Your task to perform on an android device: When is my next appointment? Image 0: 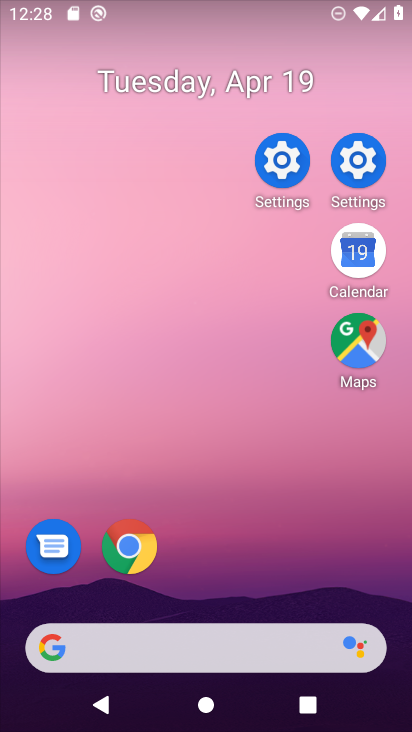
Step 0: drag from (275, 605) to (78, 151)
Your task to perform on an android device: When is my next appointment? Image 1: 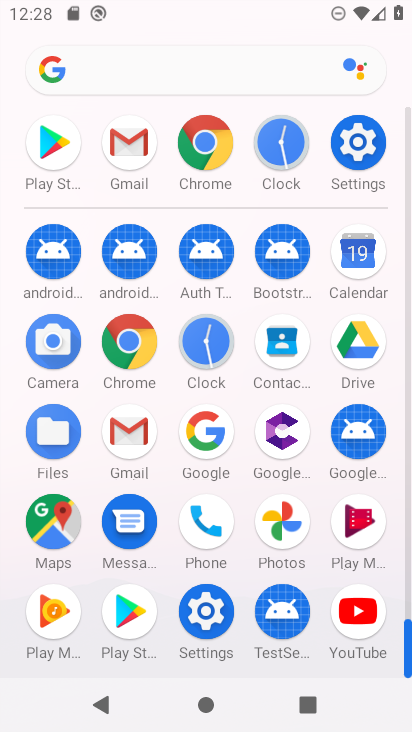
Step 1: click (119, 151)
Your task to perform on an android device: When is my next appointment? Image 2: 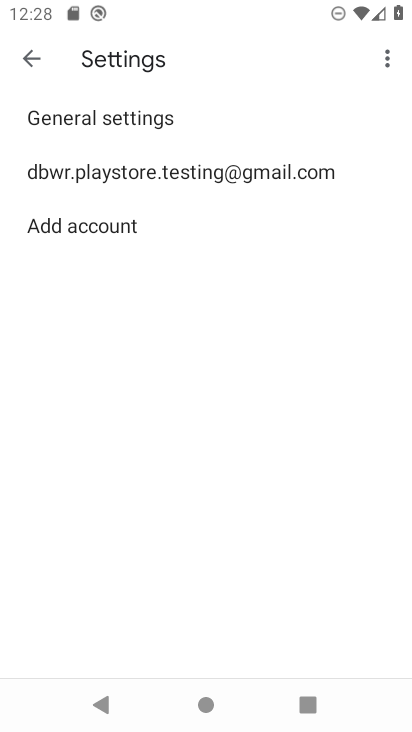
Step 2: click (25, 59)
Your task to perform on an android device: When is my next appointment? Image 3: 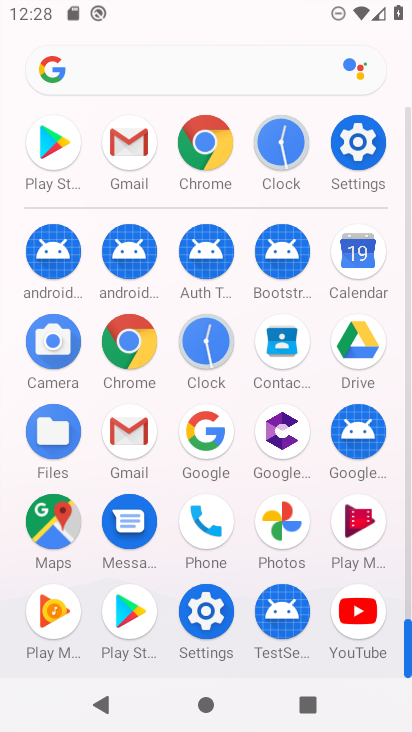
Step 3: click (372, 272)
Your task to perform on an android device: When is my next appointment? Image 4: 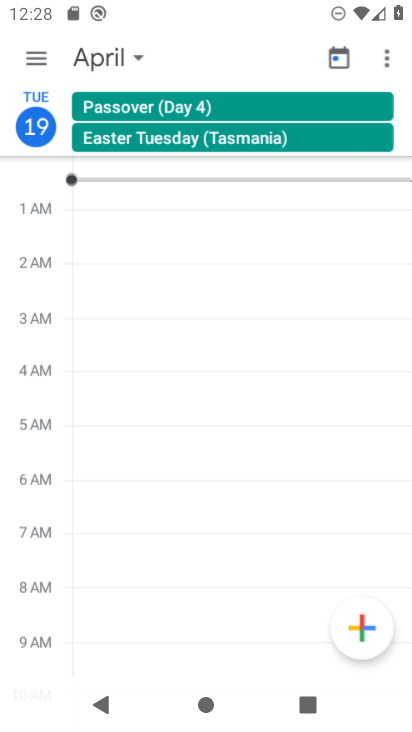
Step 4: click (367, 270)
Your task to perform on an android device: When is my next appointment? Image 5: 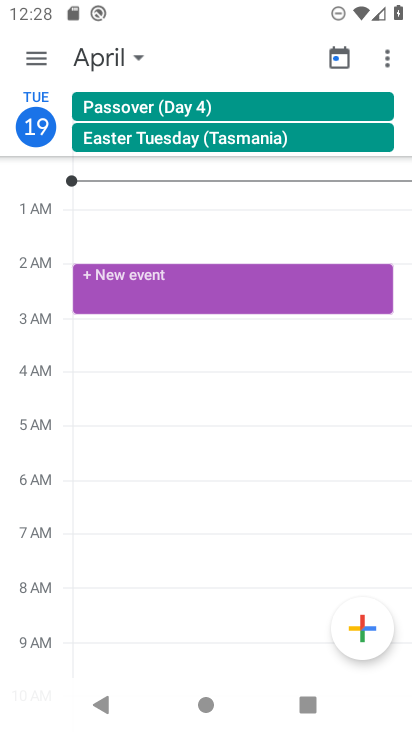
Step 5: click (35, 51)
Your task to perform on an android device: When is my next appointment? Image 6: 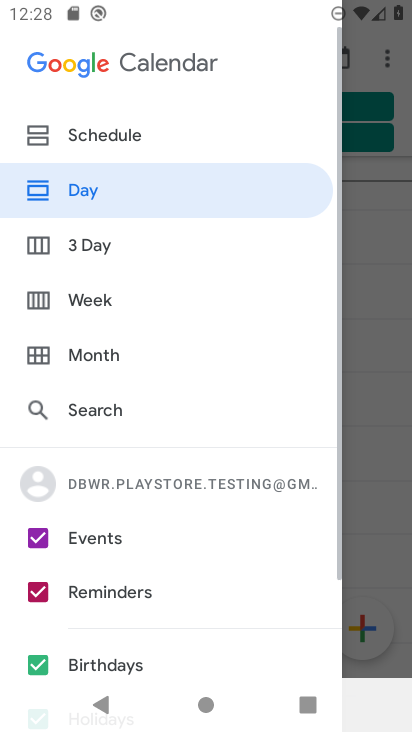
Step 6: click (82, 542)
Your task to perform on an android device: When is my next appointment? Image 7: 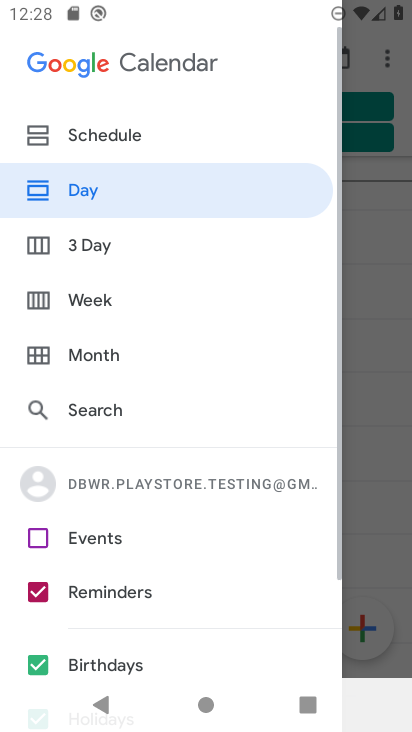
Step 7: click (82, 542)
Your task to perform on an android device: When is my next appointment? Image 8: 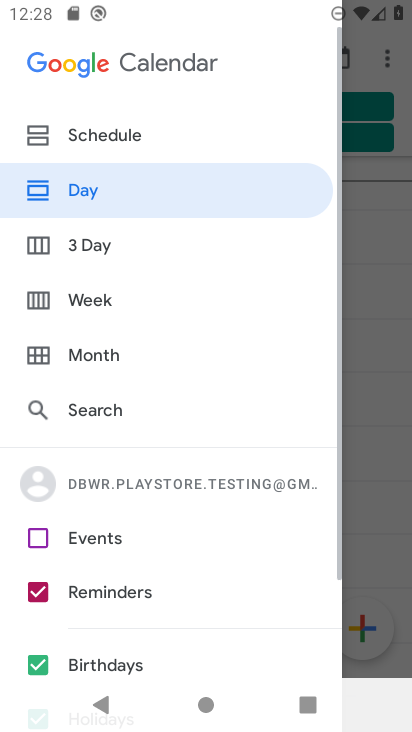
Step 8: click (82, 542)
Your task to perform on an android device: When is my next appointment? Image 9: 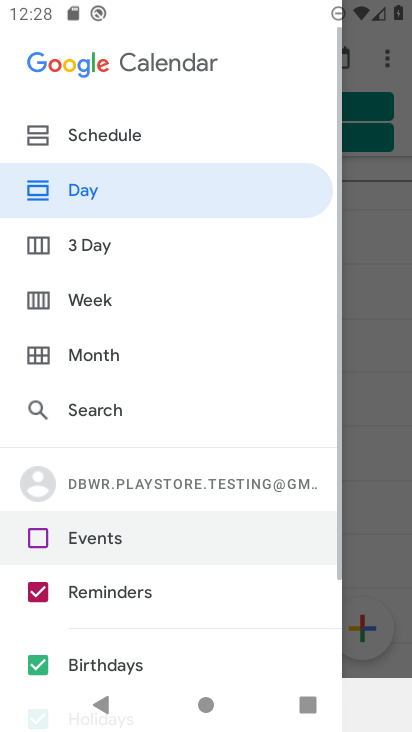
Step 9: click (82, 542)
Your task to perform on an android device: When is my next appointment? Image 10: 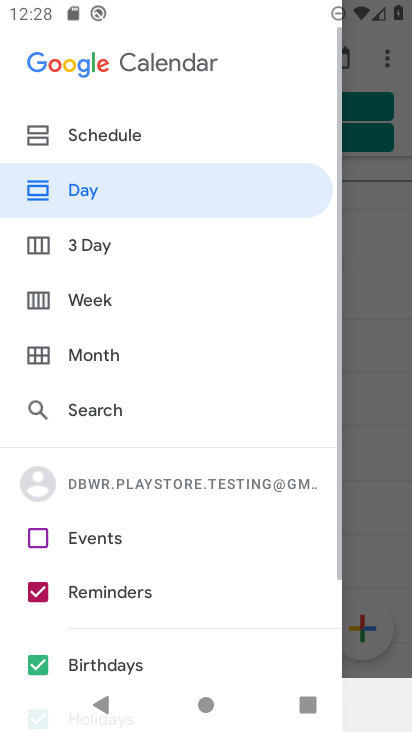
Step 10: click (82, 542)
Your task to perform on an android device: When is my next appointment? Image 11: 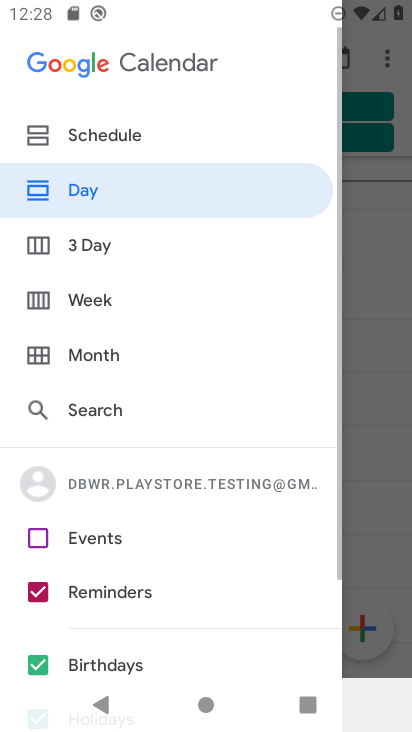
Step 11: click (39, 535)
Your task to perform on an android device: When is my next appointment? Image 12: 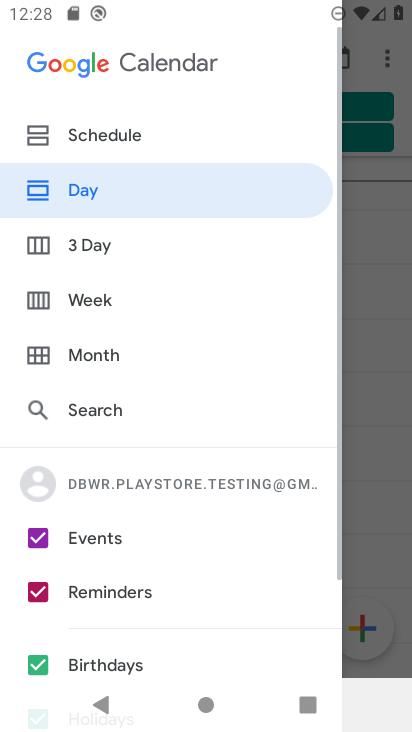
Step 12: click (39, 535)
Your task to perform on an android device: When is my next appointment? Image 13: 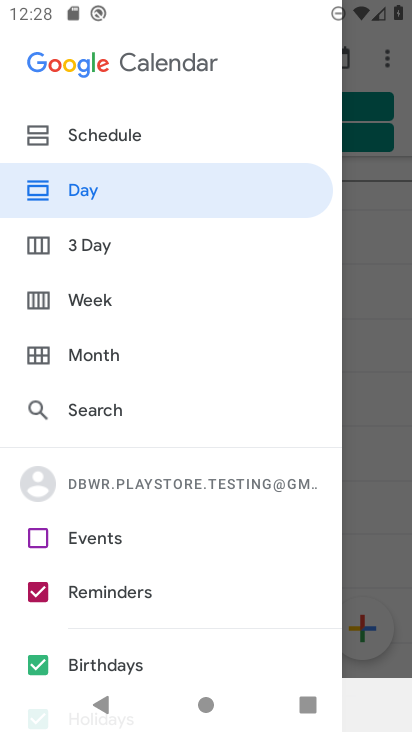
Step 13: click (34, 537)
Your task to perform on an android device: When is my next appointment? Image 14: 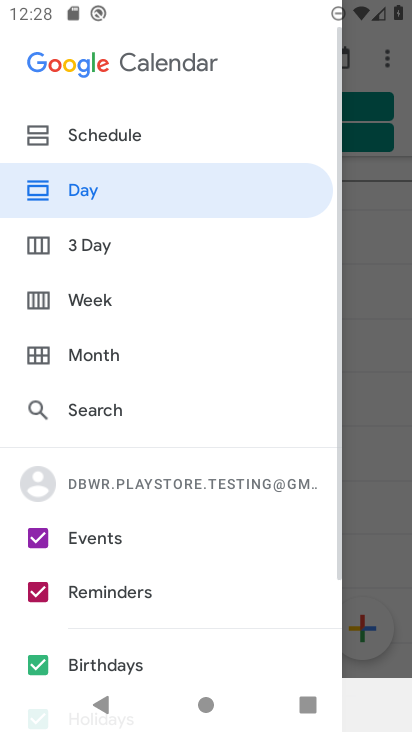
Step 14: drag from (228, 492) to (138, 189)
Your task to perform on an android device: When is my next appointment? Image 15: 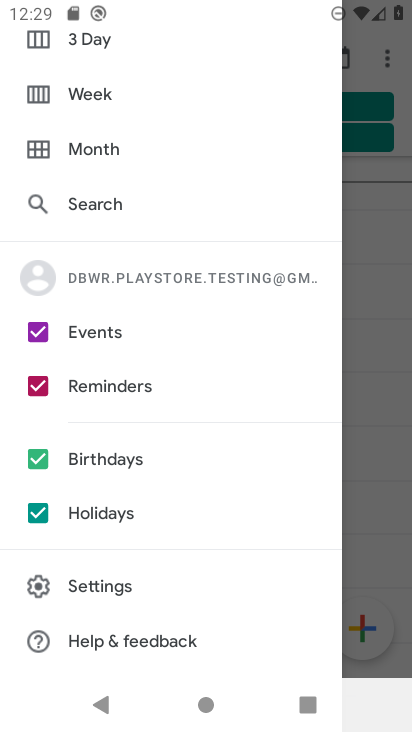
Step 15: click (85, 578)
Your task to perform on an android device: When is my next appointment? Image 16: 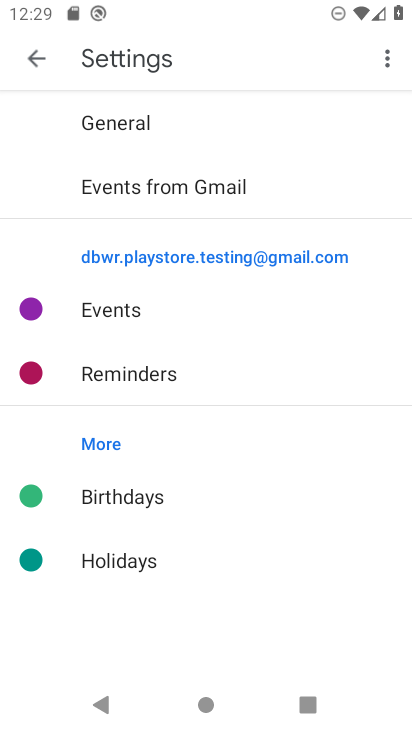
Step 16: click (93, 583)
Your task to perform on an android device: When is my next appointment? Image 17: 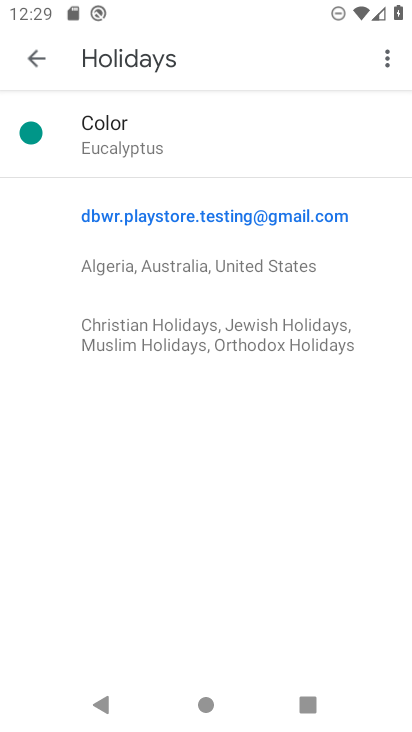
Step 17: click (37, 53)
Your task to perform on an android device: When is my next appointment? Image 18: 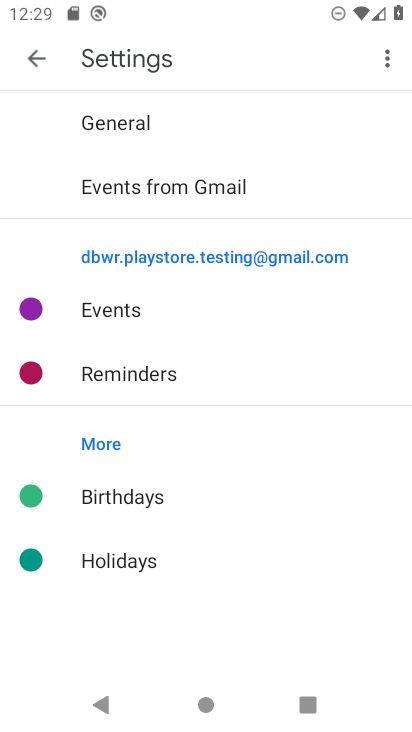
Step 18: click (24, 56)
Your task to perform on an android device: When is my next appointment? Image 19: 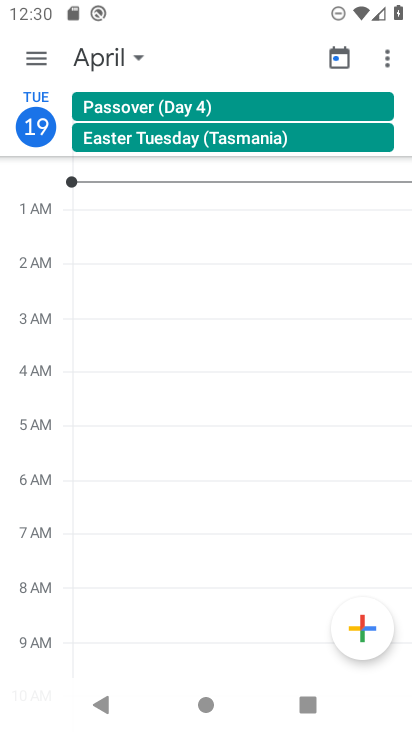
Step 19: click (125, 126)
Your task to perform on an android device: When is my next appointment? Image 20: 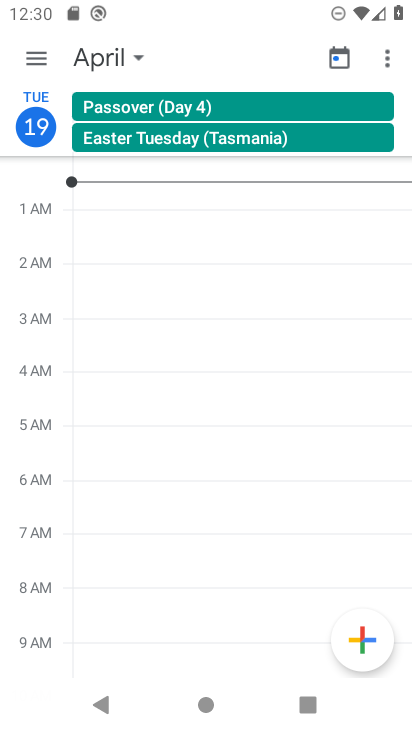
Step 20: drag from (209, 555) to (89, 158)
Your task to perform on an android device: When is my next appointment? Image 21: 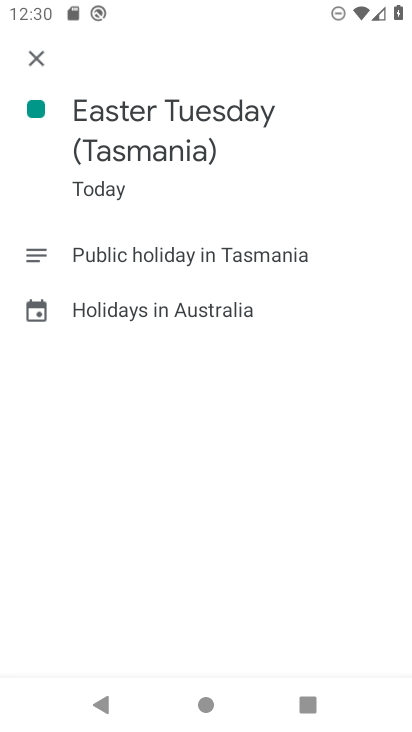
Step 21: drag from (184, 404) to (184, 54)
Your task to perform on an android device: When is my next appointment? Image 22: 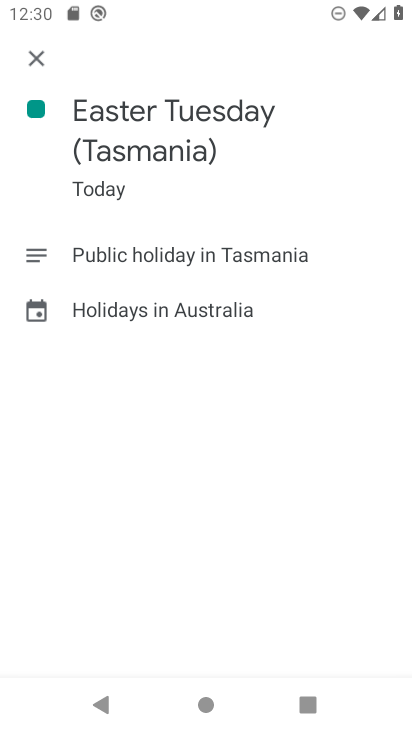
Step 22: click (43, 52)
Your task to perform on an android device: When is my next appointment? Image 23: 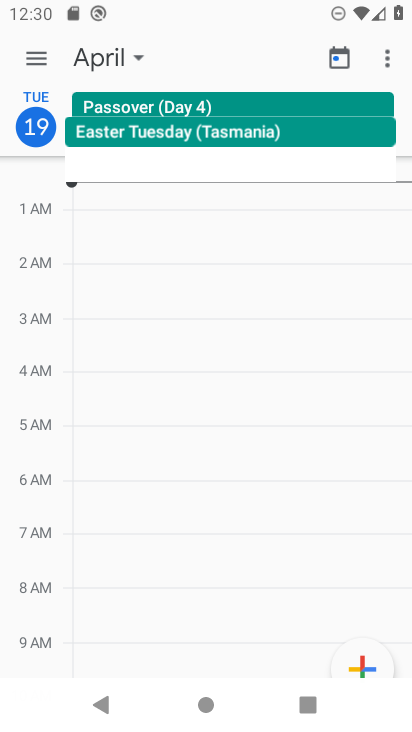
Step 23: click (43, 52)
Your task to perform on an android device: When is my next appointment? Image 24: 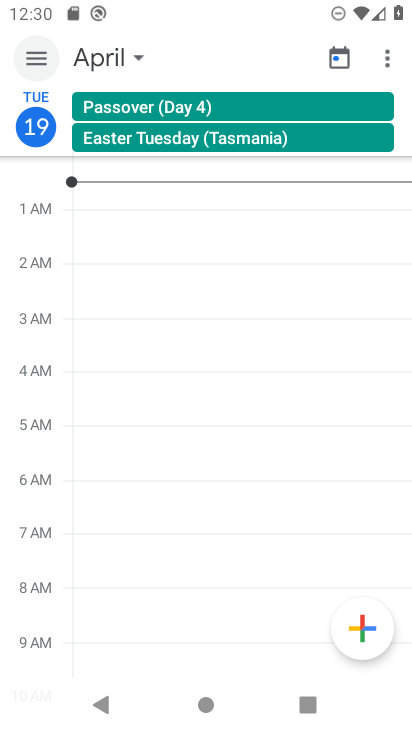
Step 24: click (43, 52)
Your task to perform on an android device: When is my next appointment? Image 25: 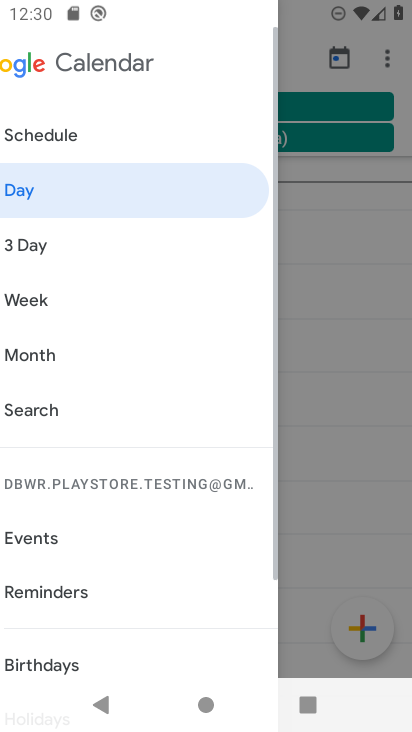
Step 25: click (43, 52)
Your task to perform on an android device: When is my next appointment? Image 26: 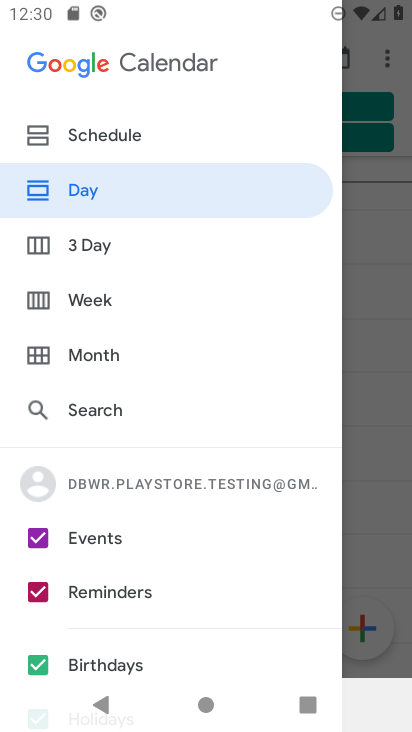
Step 26: task complete